Your task to perform on an android device: set the timer Image 0: 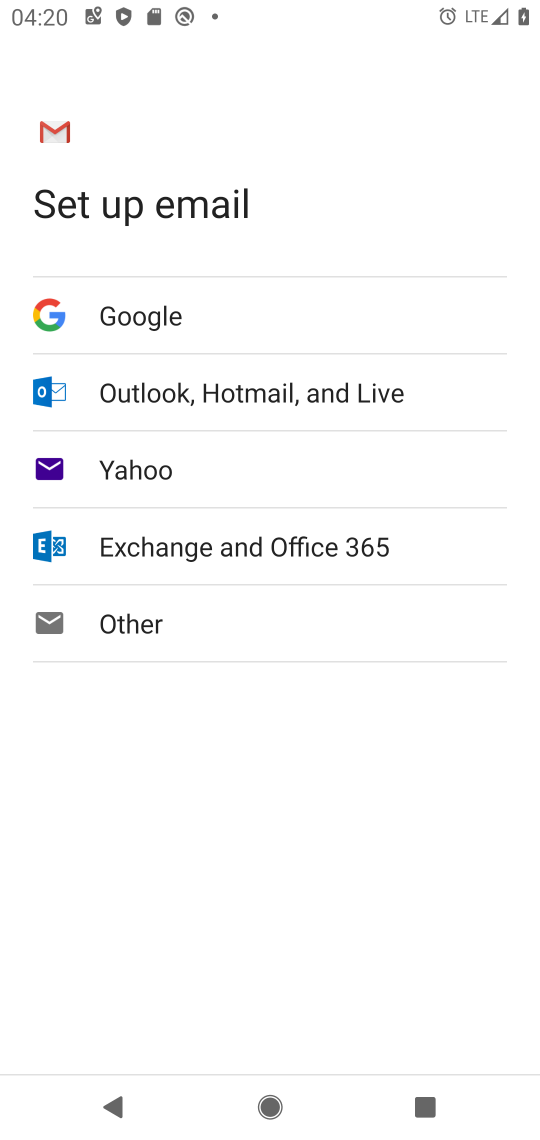
Step 0: press back button
Your task to perform on an android device: set the timer Image 1: 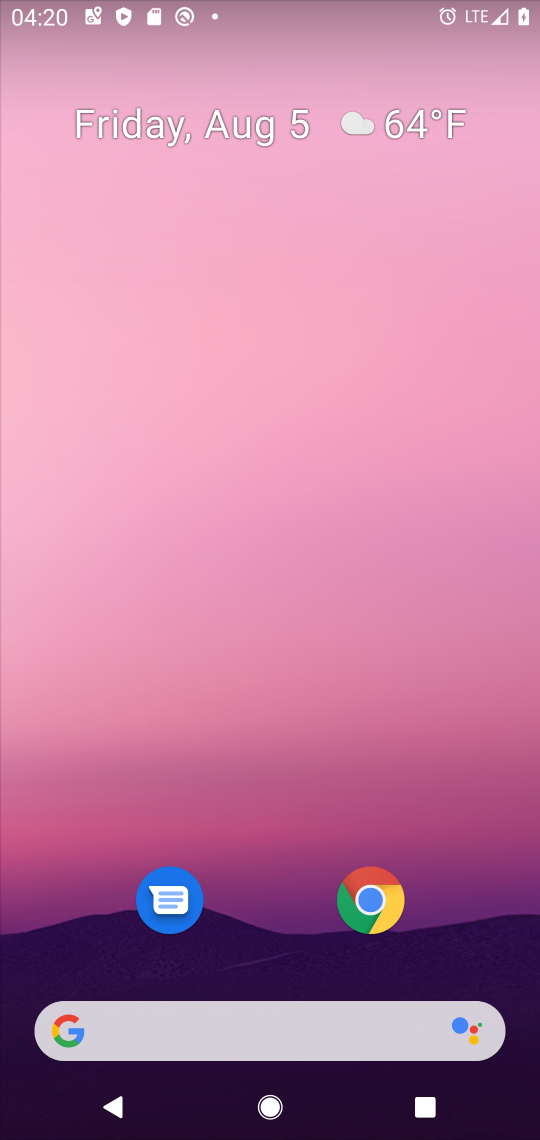
Step 1: drag from (247, 865) to (344, 29)
Your task to perform on an android device: set the timer Image 2: 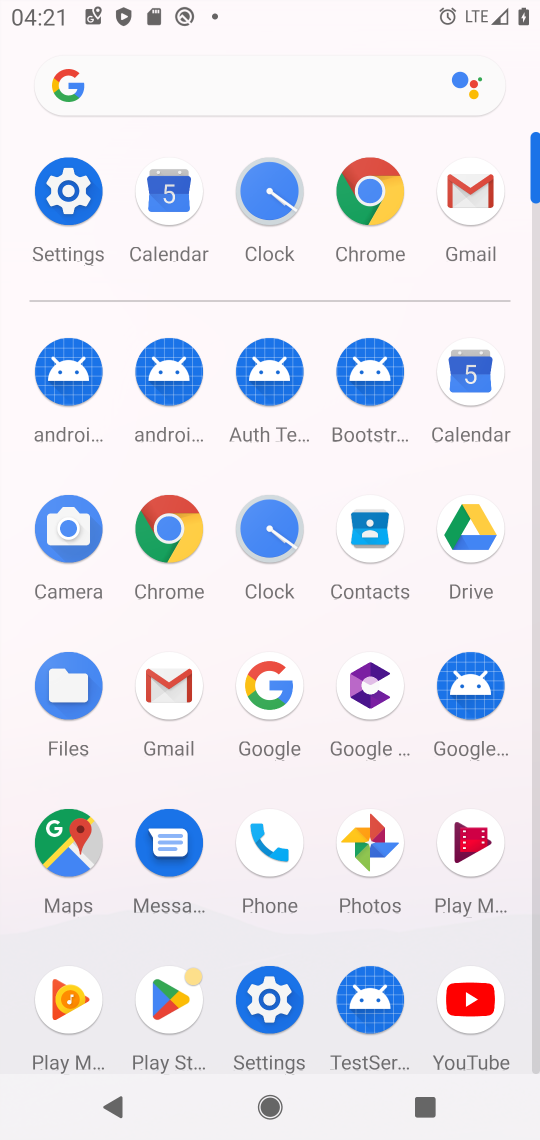
Step 2: click (256, 530)
Your task to perform on an android device: set the timer Image 3: 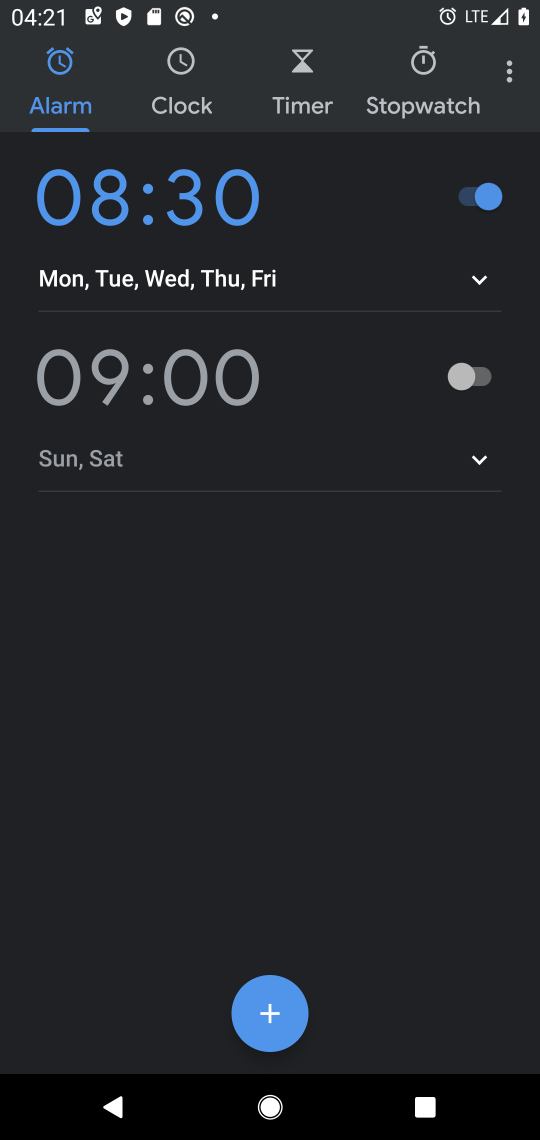
Step 3: click (254, 74)
Your task to perform on an android device: set the timer Image 4: 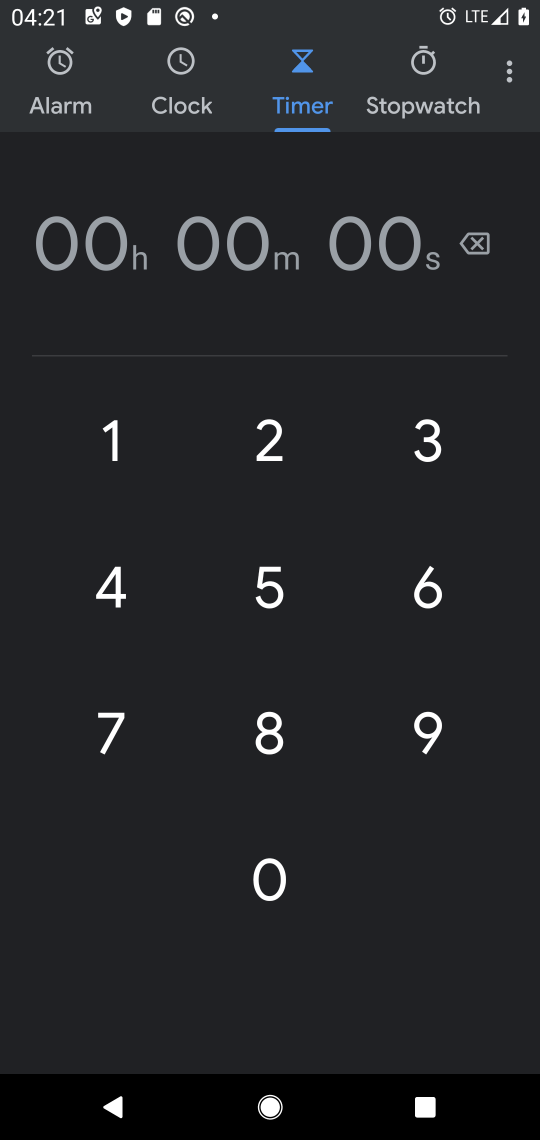
Step 4: click (145, 446)
Your task to perform on an android device: set the timer Image 5: 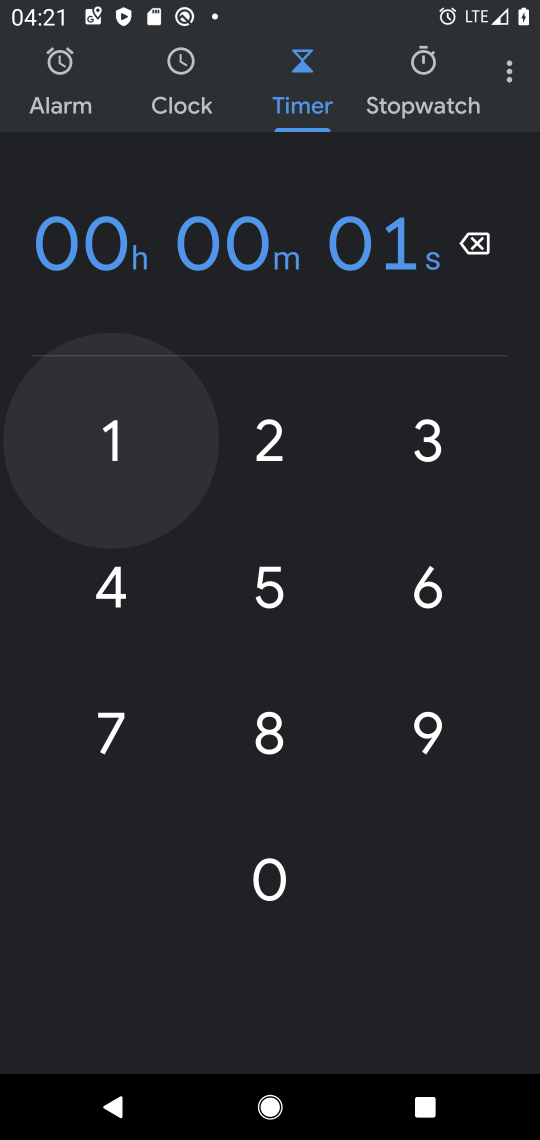
Step 5: click (300, 433)
Your task to perform on an android device: set the timer Image 6: 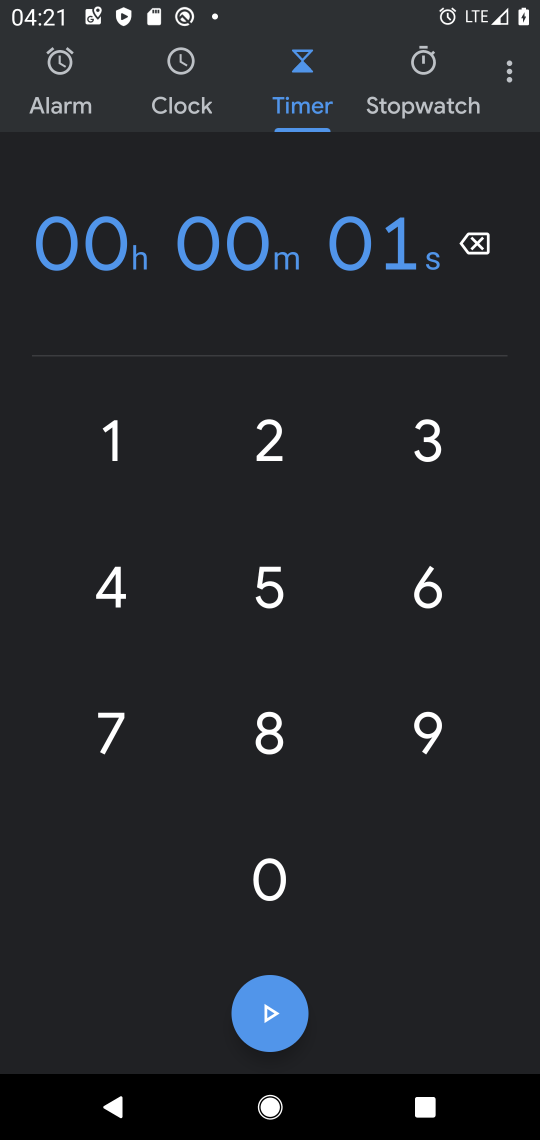
Step 6: click (408, 428)
Your task to perform on an android device: set the timer Image 7: 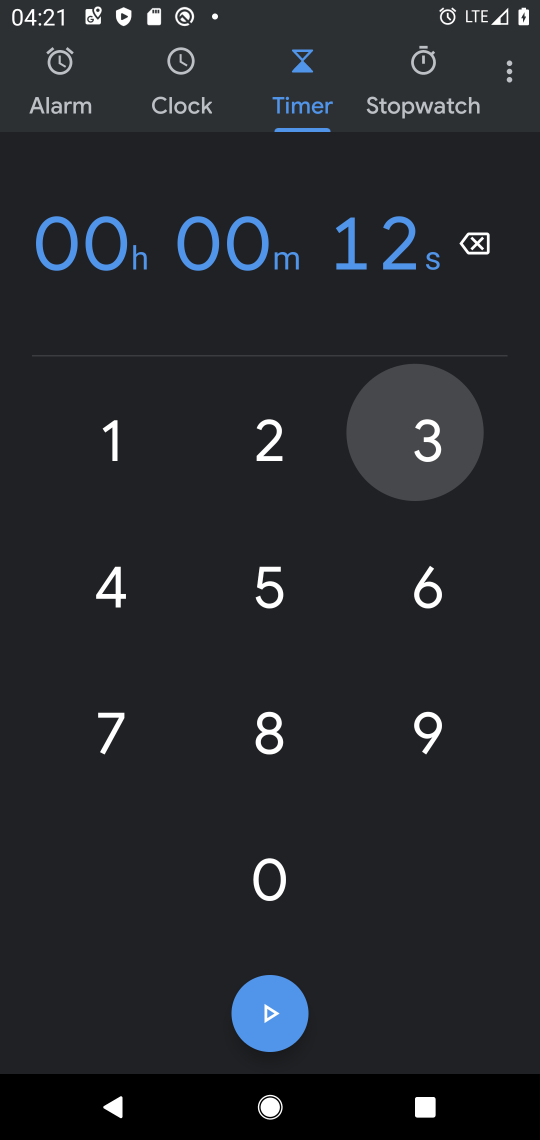
Step 7: click (272, 597)
Your task to perform on an android device: set the timer Image 8: 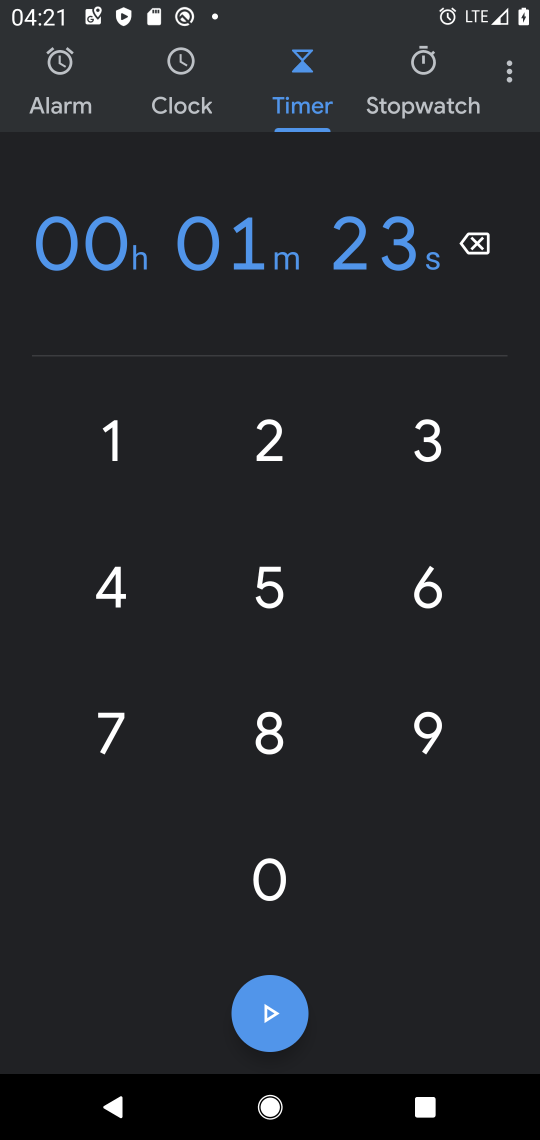
Step 8: click (402, 580)
Your task to perform on an android device: set the timer Image 9: 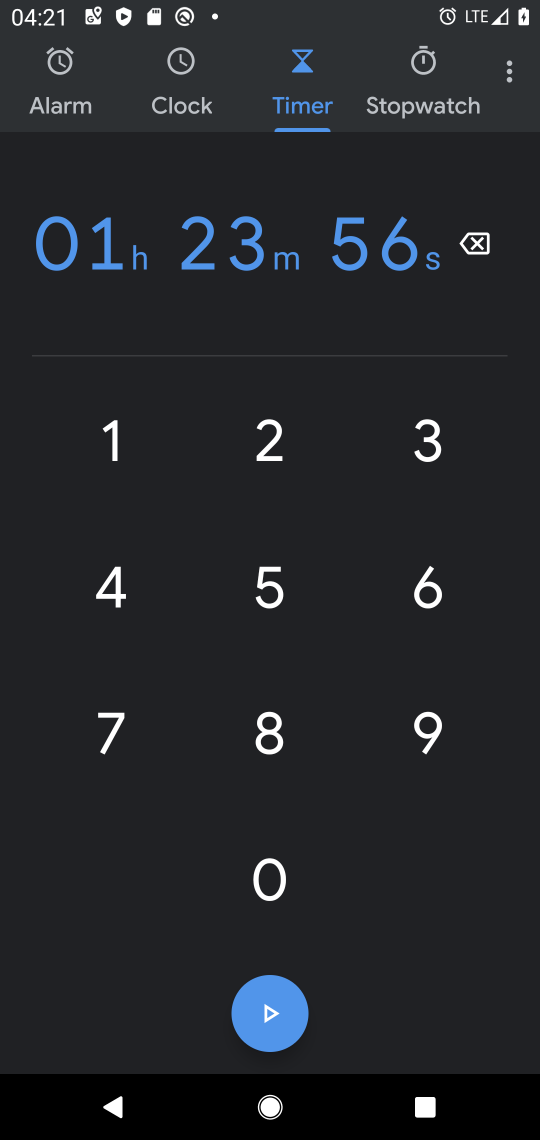
Step 9: task complete